Your task to perform on an android device: Show me popular games on the Play Store Image 0: 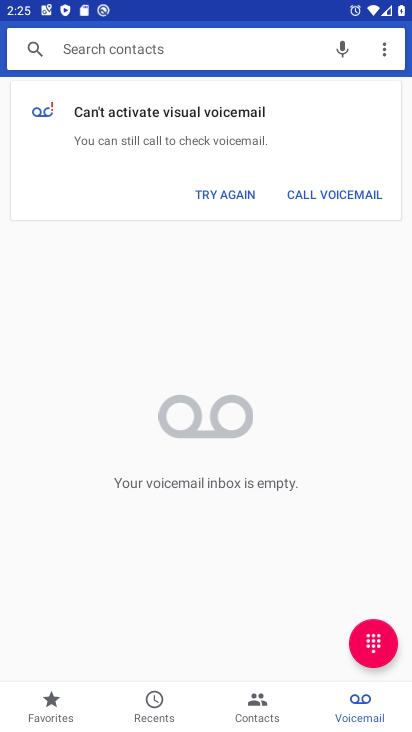
Step 0: press home button
Your task to perform on an android device: Show me popular games on the Play Store Image 1: 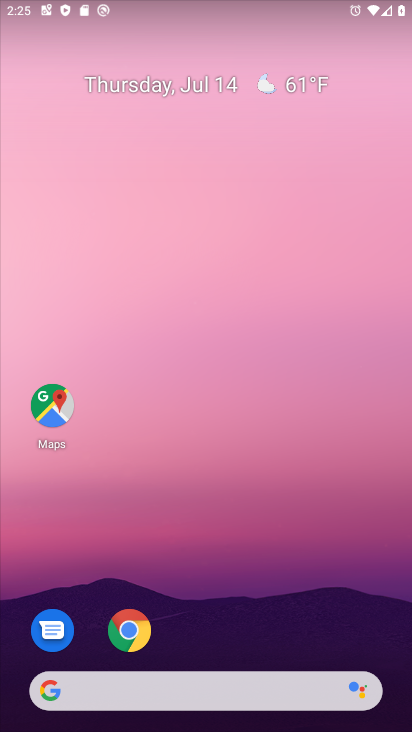
Step 1: drag from (142, 699) to (270, 20)
Your task to perform on an android device: Show me popular games on the Play Store Image 2: 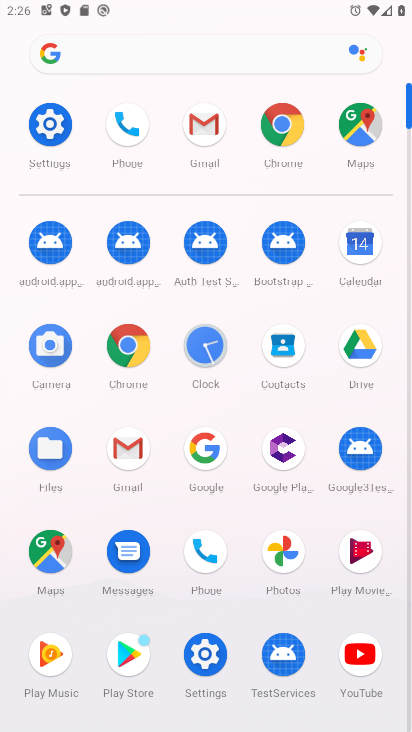
Step 2: click (129, 657)
Your task to perform on an android device: Show me popular games on the Play Store Image 3: 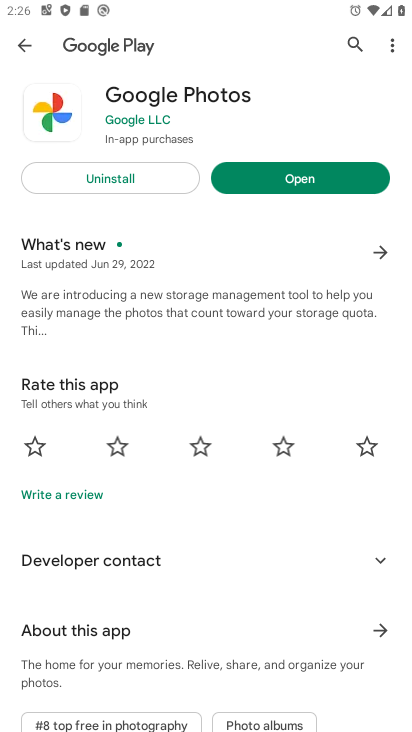
Step 3: click (33, 38)
Your task to perform on an android device: Show me popular games on the Play Store Image 4: 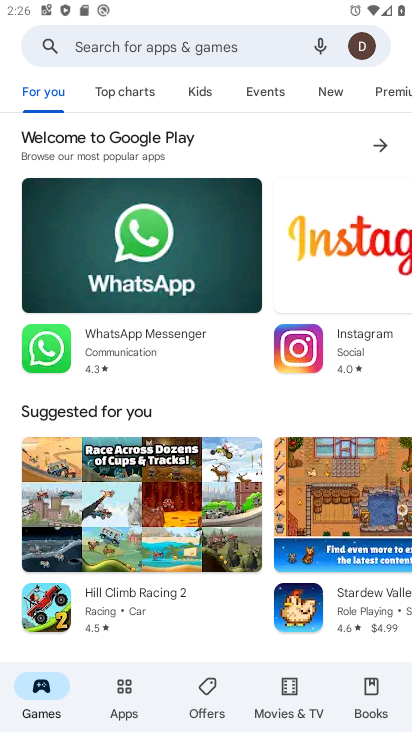
Step 4: drag from (179, 388) to (304, 15)
Your task to perform on an android device: Show me popular games on the Play Store Image 5: 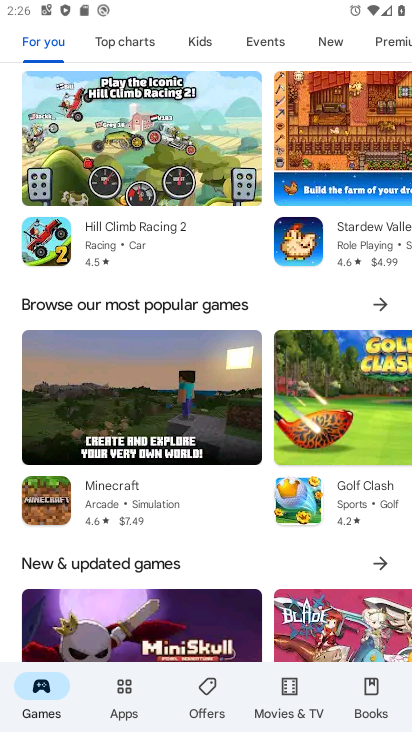
Step 5: click (382, 303)
Your task to perform on an android device: Show me popular games on the Play Store Image 6: 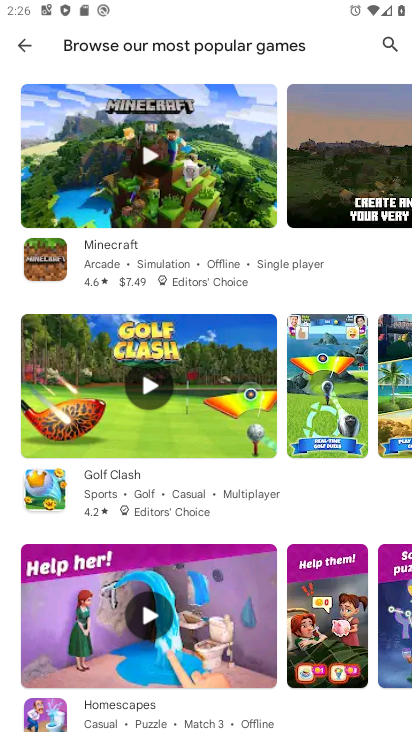
Step 6: task complete